Your task to perform on an android device: uninstall "Pandora - Music & Podcasts" Image 0: 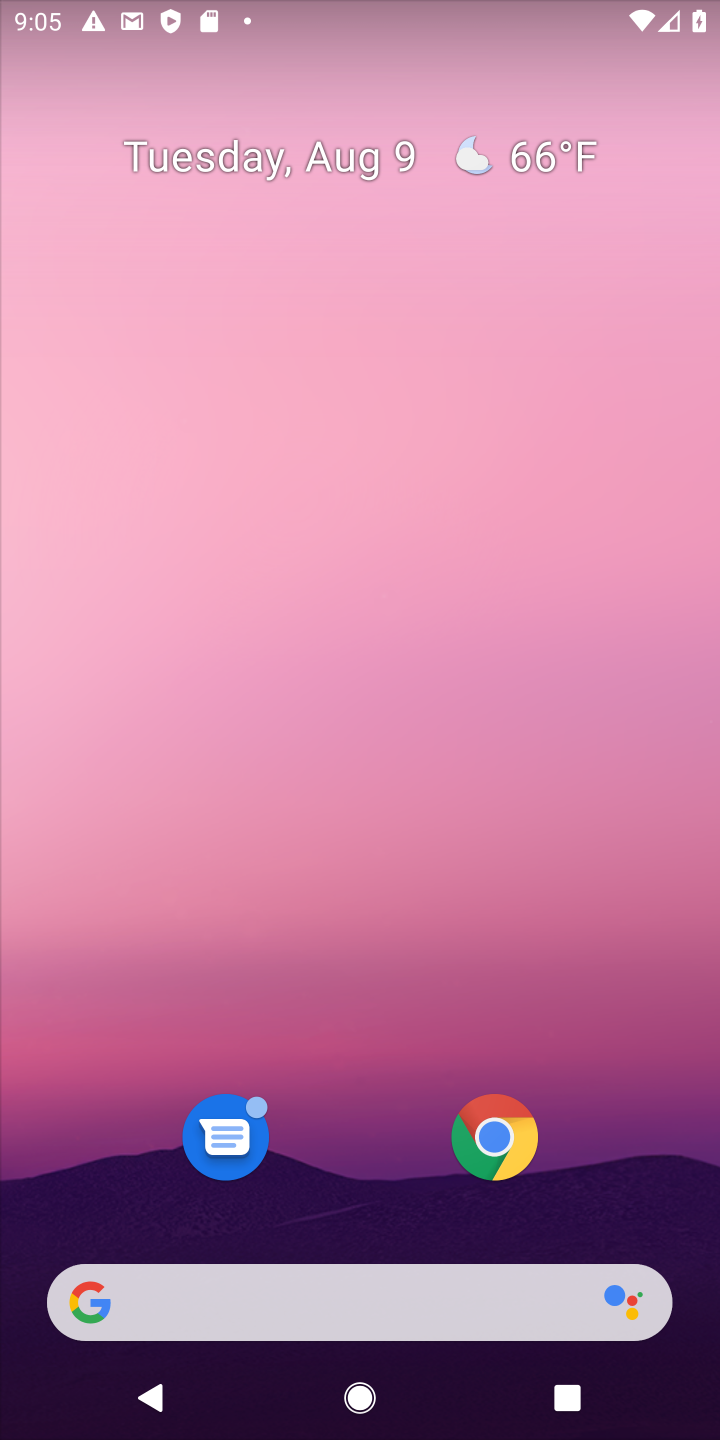
Step 0: drag from (370, 1037) to (381, 283)
Your task to perform on an android device: uninstall "Pandora - Music & Podcasts" Image 1: 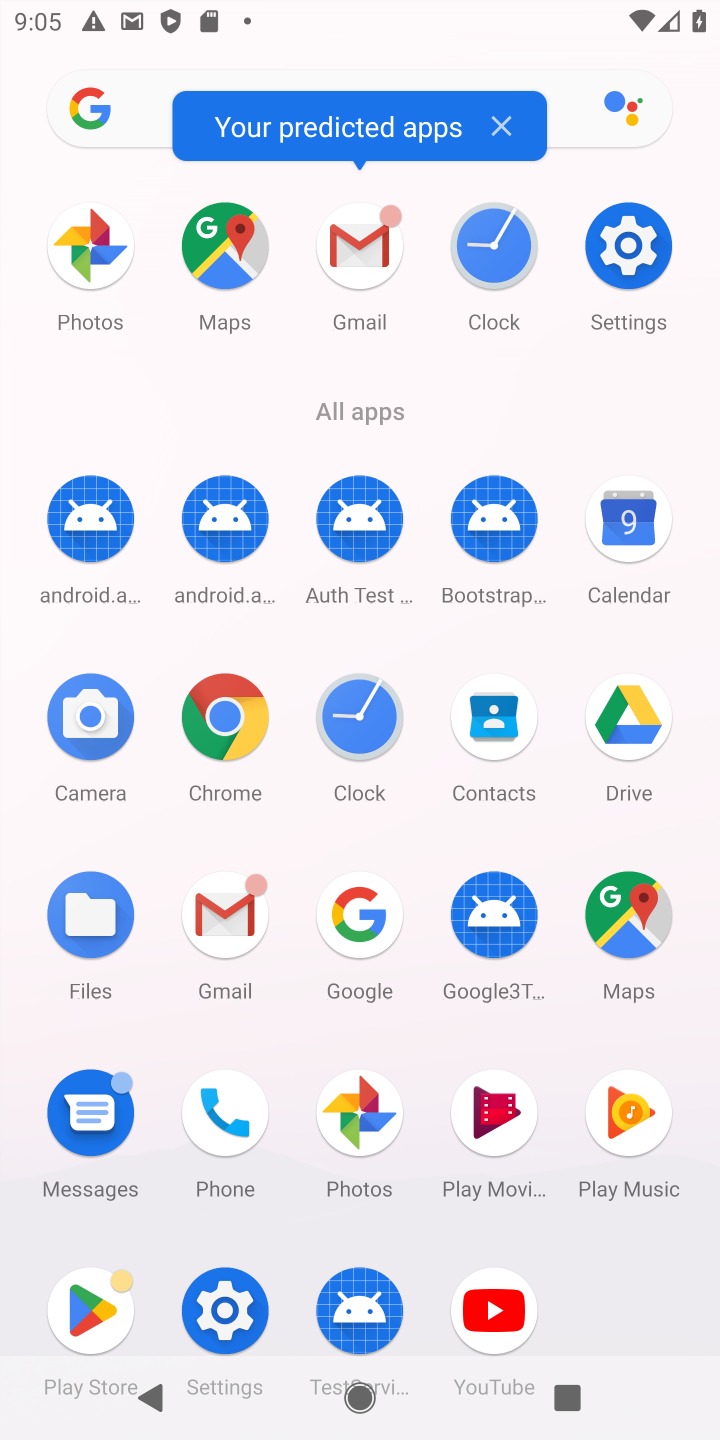
Step 1: click (84, 1289)
Your task to perform on an android device: uninstall "Pandora - Music & Podcasts" Image 2: 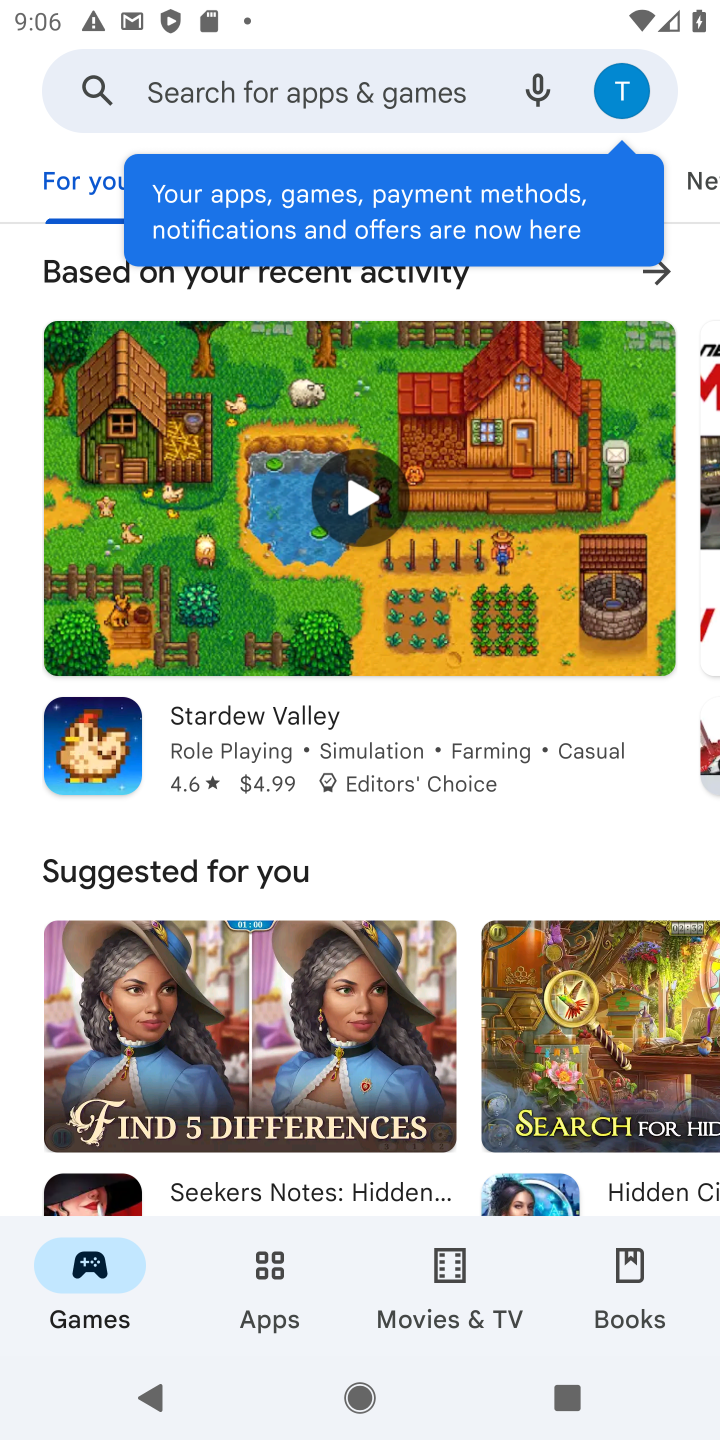
Step 2: click (230, 98)
Your task to perform on an android device: uninstall "Pandora - Music & Podcasts" Image 3: 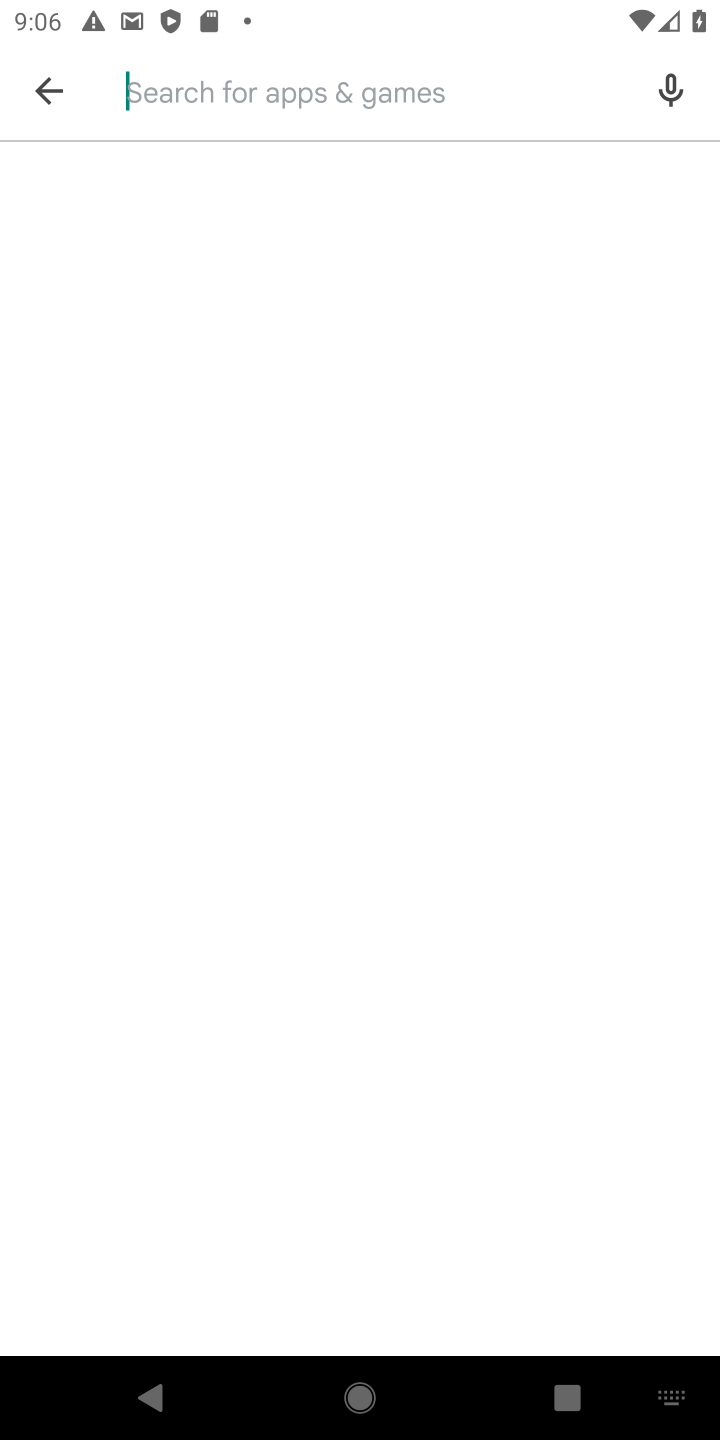
Step 3: type "Pandora - Music & Podcasts"
Your task to perform on an android device: uninstall "Pandora - Music & Podcasts" Image 4: 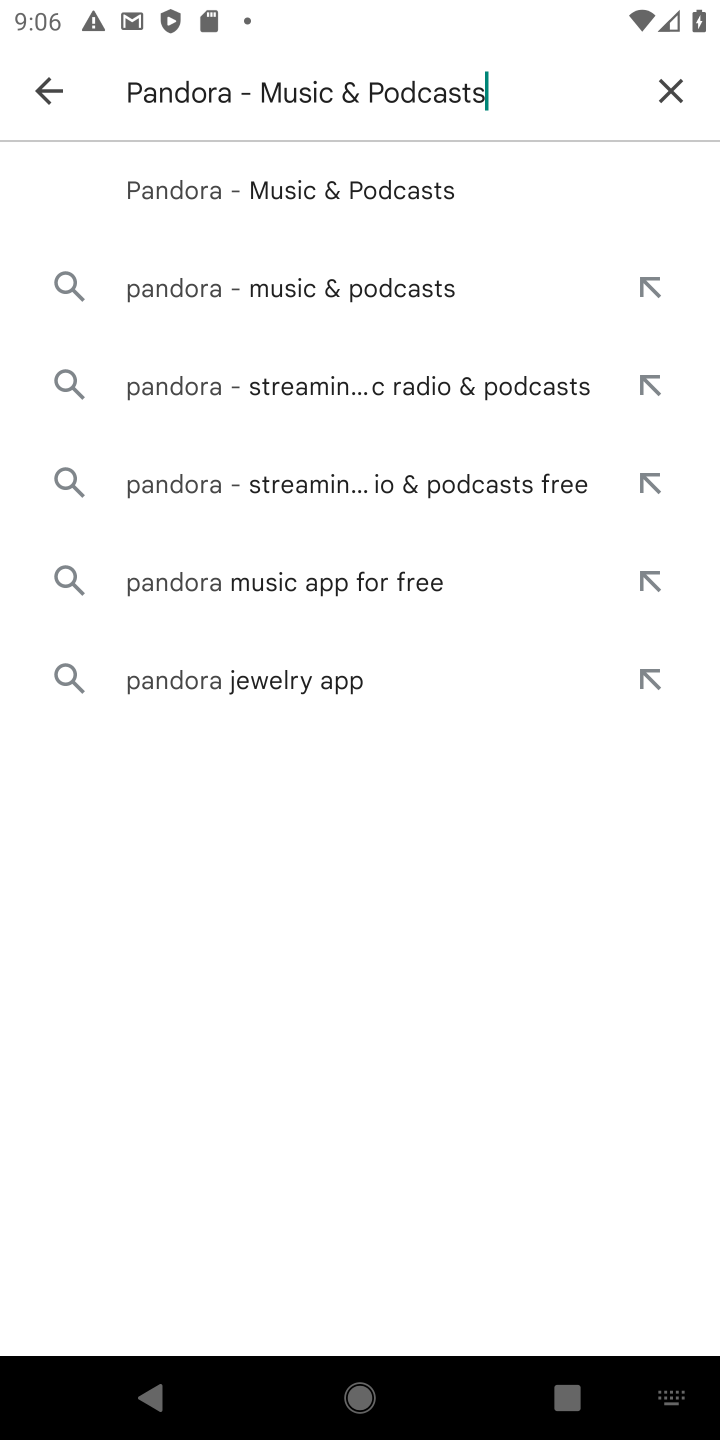
Step 4: type ""
Your task to perform on an android device: uninstall "Pandora - Music & Podcasts" Image 5: 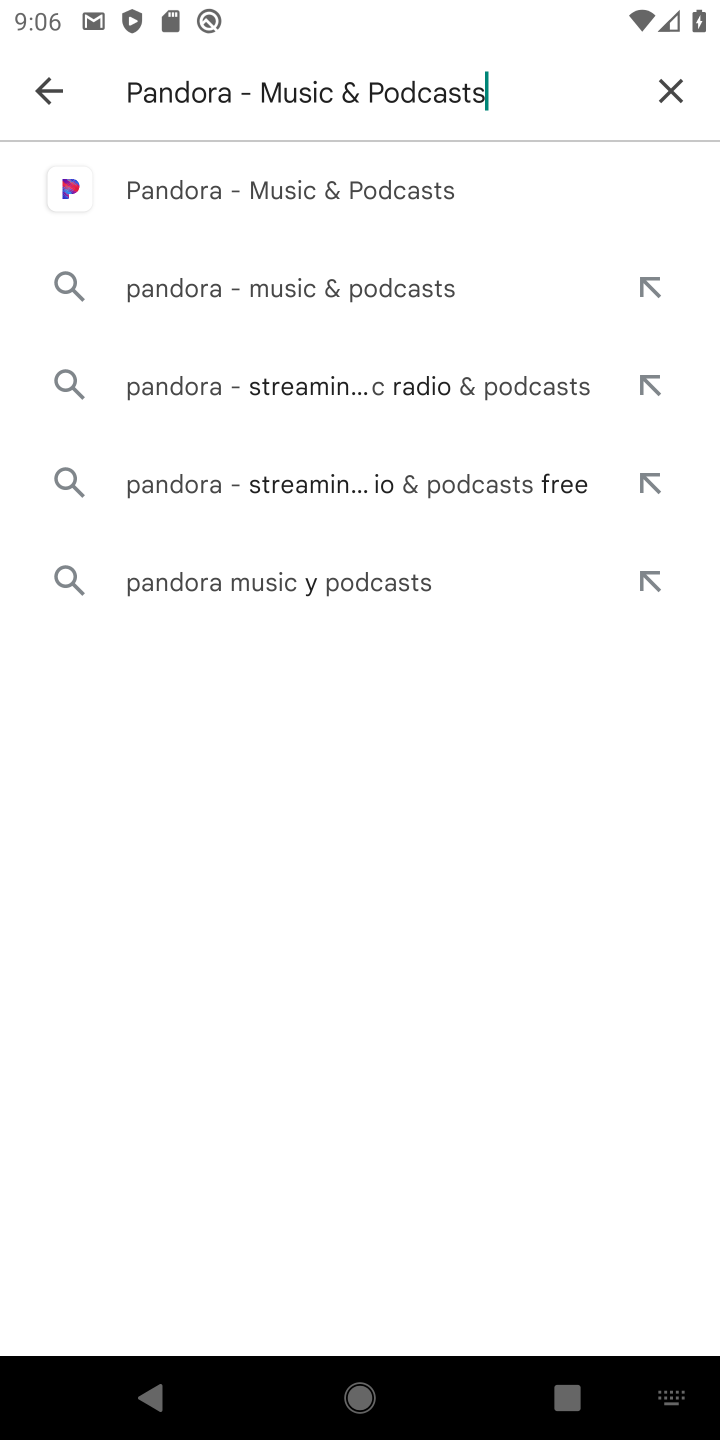
Step 5: click (361, 210)
Your task to perform on an android device: uninstall "Pandora - Music & Podcasts" Image 6: 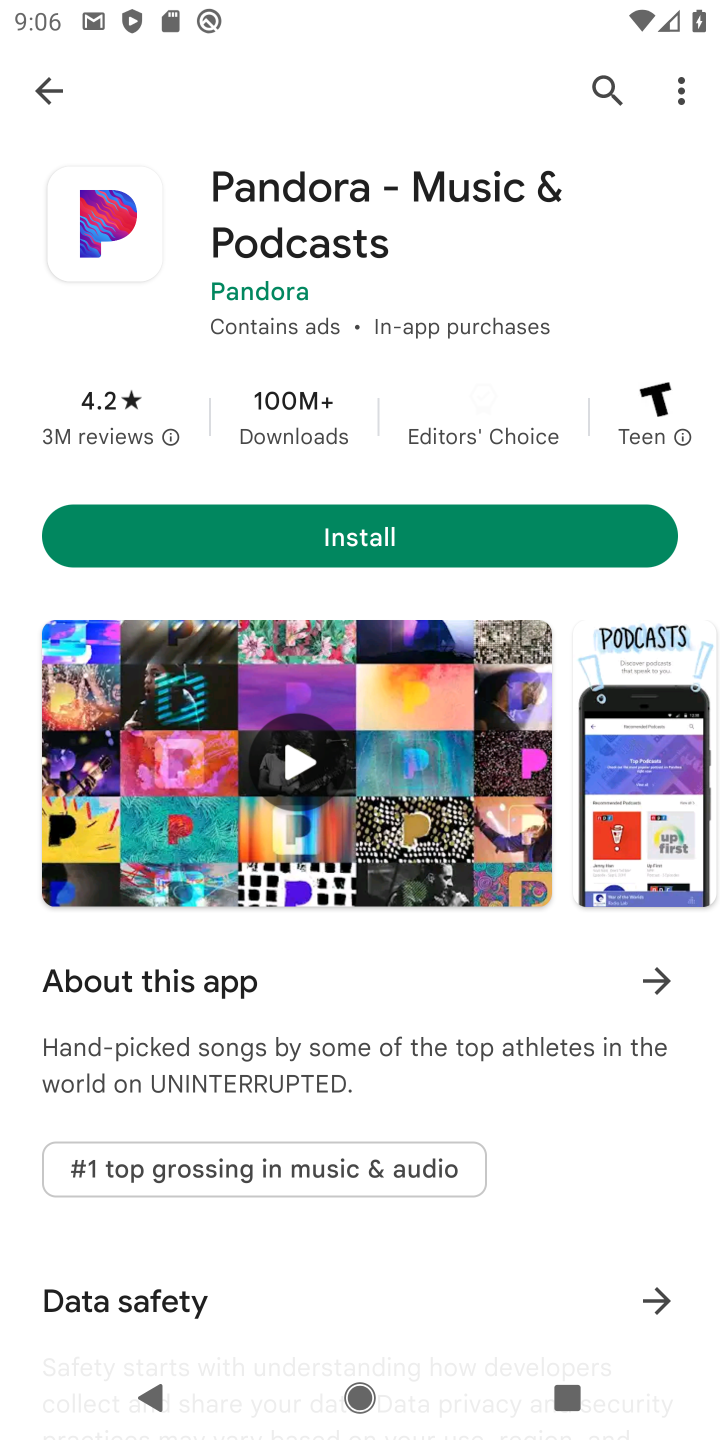
Step 6: task complete